Your task to perform on an android device: turn on airplane mode Image 0: 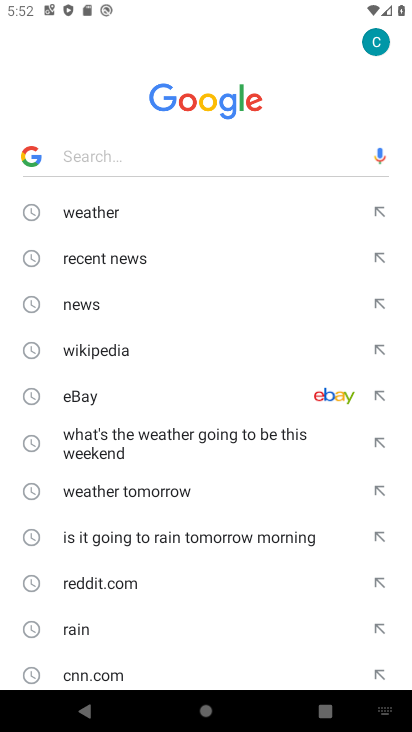
Step 0: press home button
Your task to perform on an android device: turn on airplane mode Image 1: 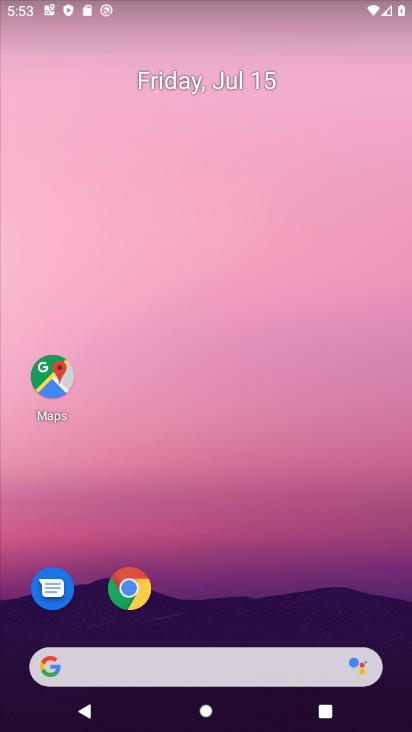
Step 1: drag from (199, 667) to (130, 11)
Your task to perform on an android device: turn on airplane mode Image 2: 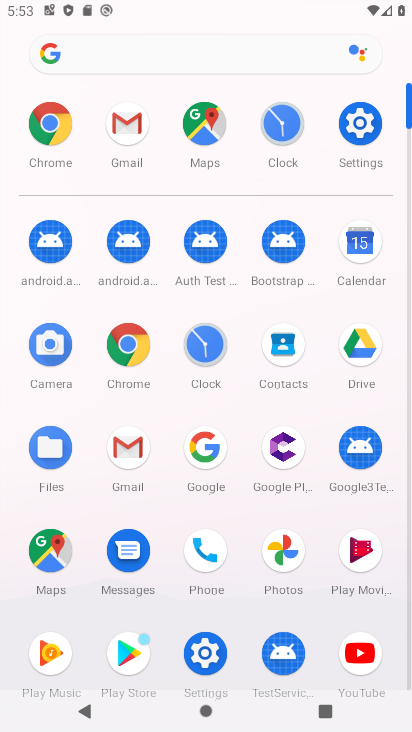
Step 2: click (357, 125)
Your task to perform on an android device: turn on airplane mode Image 3: 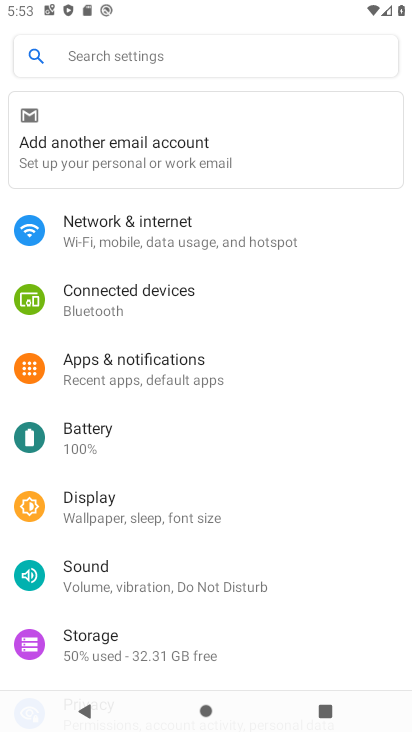
Step 3: click (172, 239)
Your task to perform on an android device: turn on airplane mode Image 4: 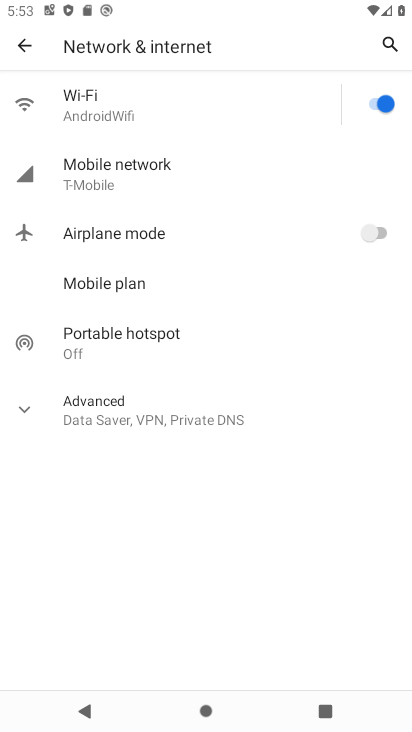
Step 4: click (386, 228)
Your task to perform on an android device: turn on airplane mode Image 5: 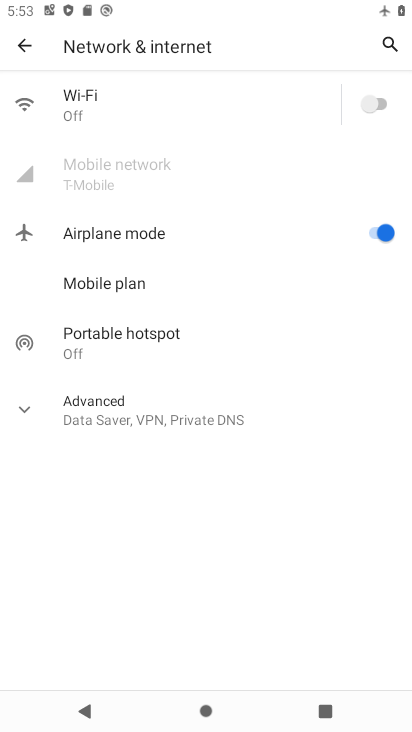
Step 5: task complete